Your task to perform on an android device: Open the calendar and show me this week's events? Image 0: 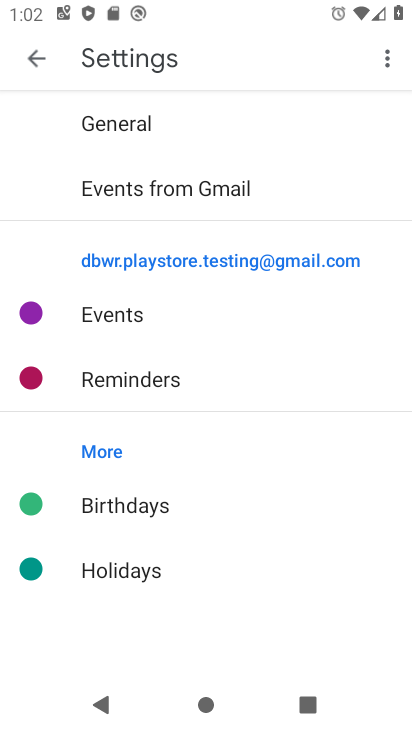
Step 0: press home button
Your task to perform on an android device: Open the calendar and show me this week's events? Image 1: 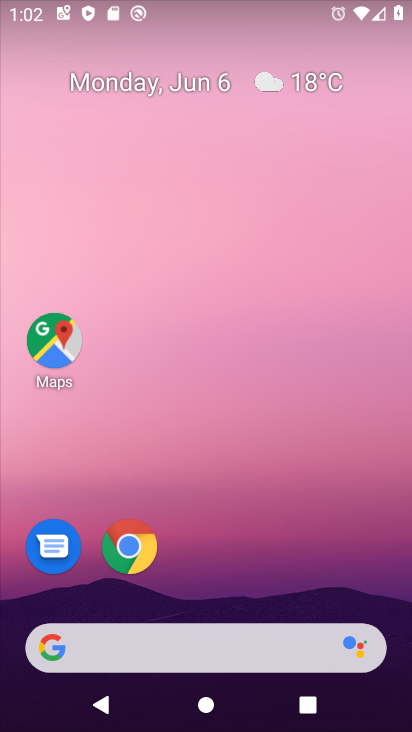
Step 1: drag from (243, 492) to (236, 62)
Your task to perform on an android device: Open the calendar and show me this week's events? Image 2: 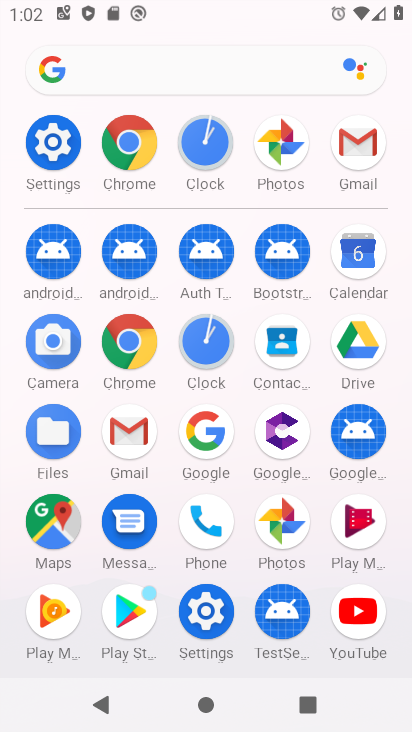
Step 2: click (363, 254)
Your task to perform on an android device: Open the calendar and show me this week's events? Image 3: 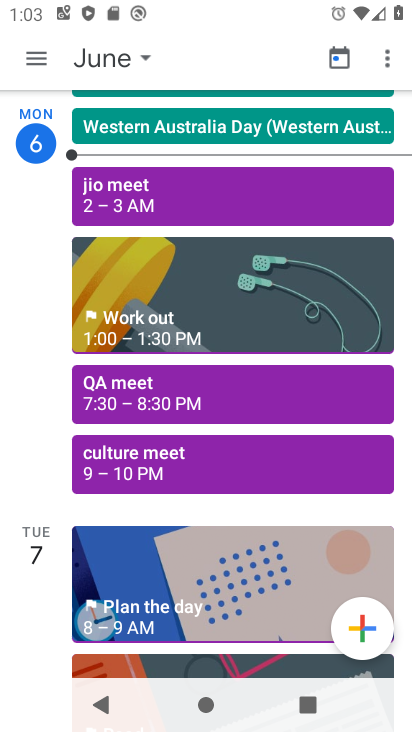
Step 3: click (39, 60)
Your task to perform on an android device: Open the calendar and show me this week's events? Image 4: 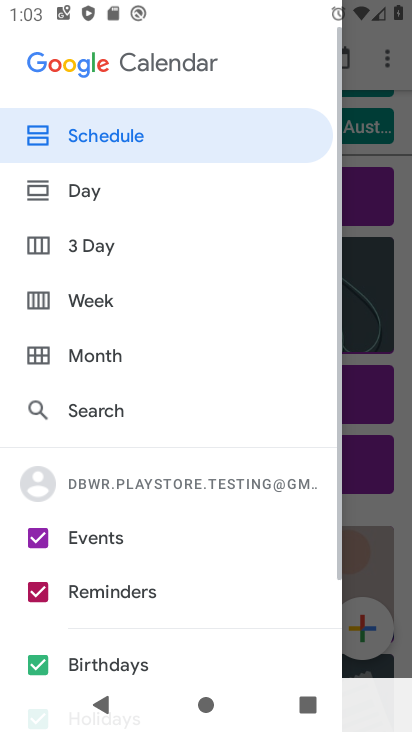
Step 4: click (91, 135)
Your task to perform on an android device: Open the calendar and show me this week's events? Image 5: 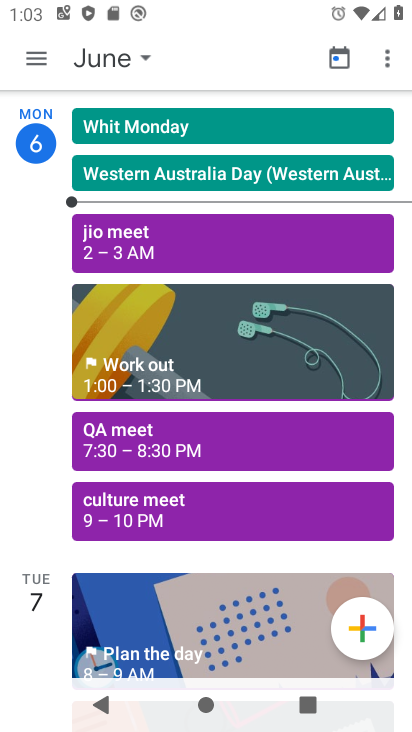
Step 5: task complete